Your task to perform on an android device: toggle data saver in the chrome app Image 0: 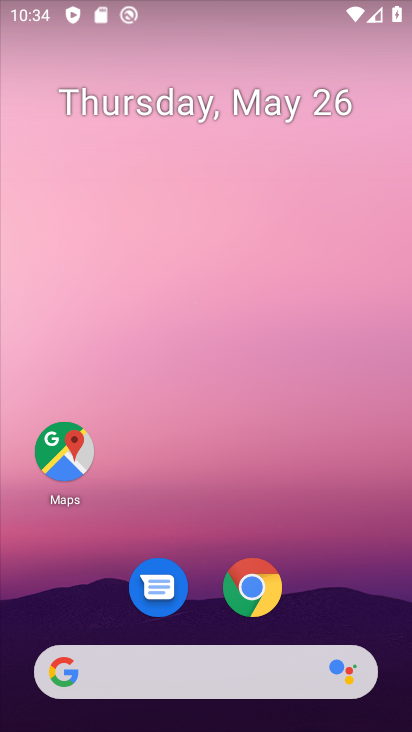
Step 0: drag from (286, 652) to (303, 84)
Your task to perform on an android device: toggle data saver in the chrome app Image 1: 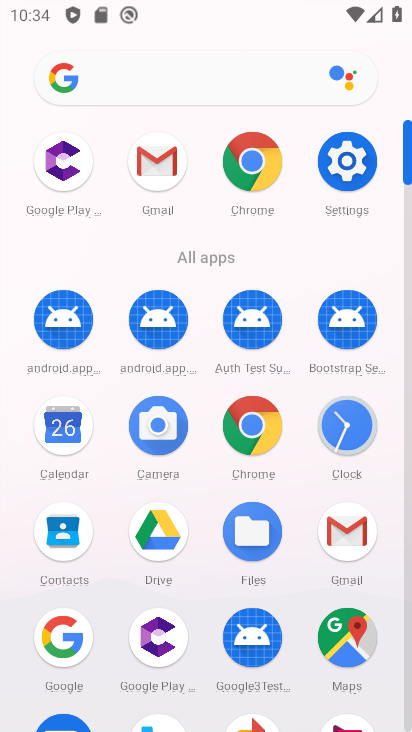
Step 1: click (246, 432)
Your task to perform on an android device: toggle data saver in the chrome app Image 2: 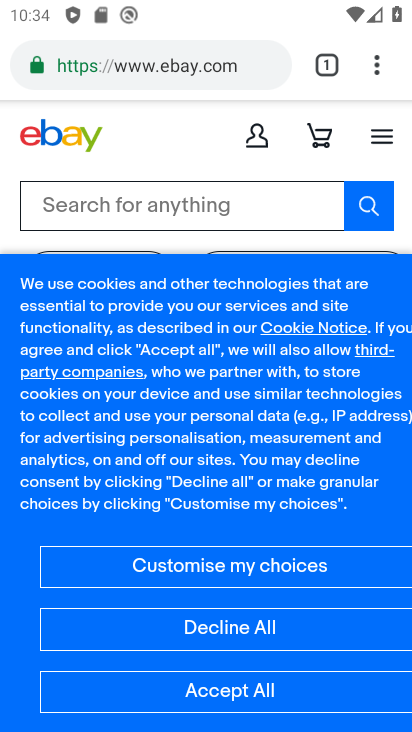
Step 2: click (367, 83)
Your task to perform on an android device: toggle data saver in the chrome app Image 3: 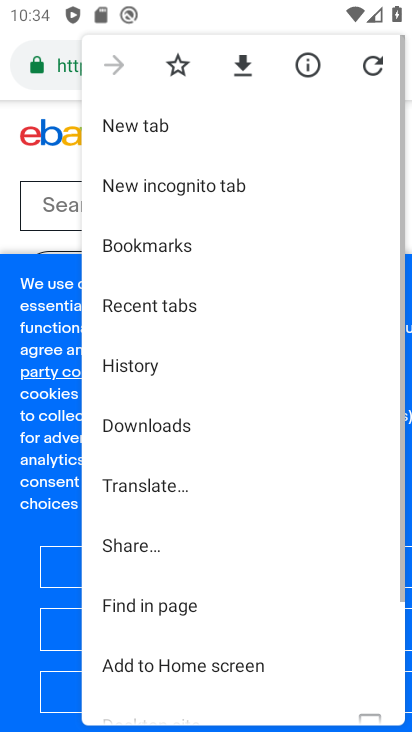
Step 3: drag from (182, 559) to (251, 180)
Your task to perform on an android device: toggle data saver in the chrome app Image 4: 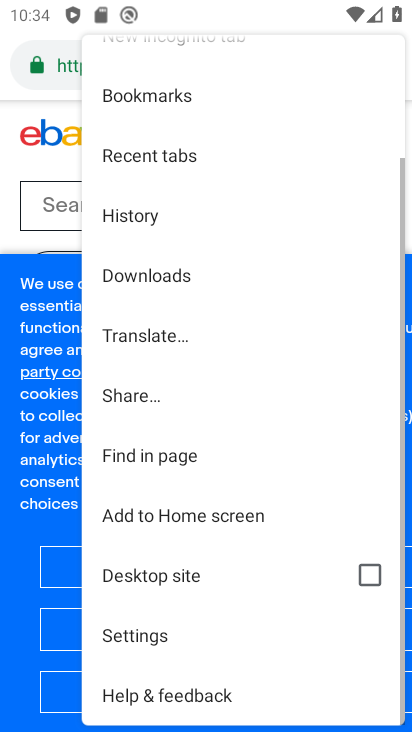
Step 4: click (159, 632)
Your task to perform on an android device: toggle data saver in the chrome app Image 5: 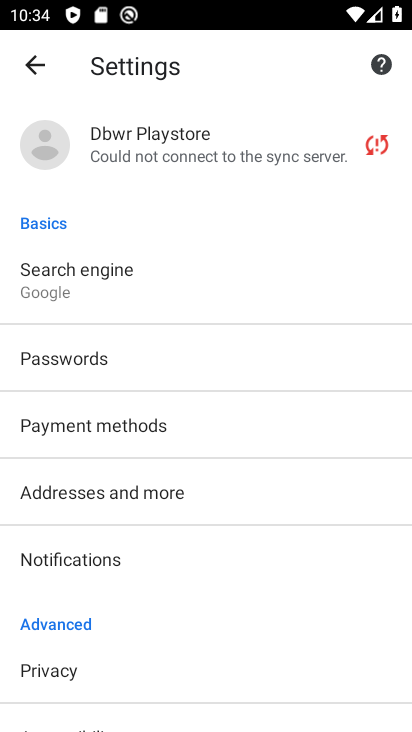
Step 5: drag from (93, 535) to (116, 284)
Your task to perform on an android device: toggle data saver in the chrome app Image 6: 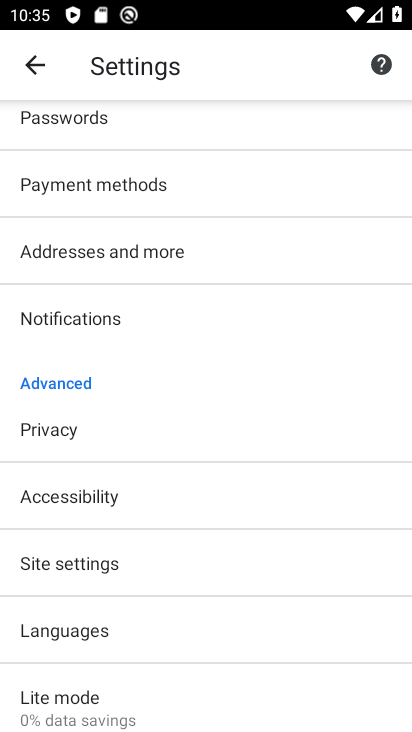
Step 6: click (91, 697)
Your task to perform on an android device: toggle data saver in the chrome app Image 7: 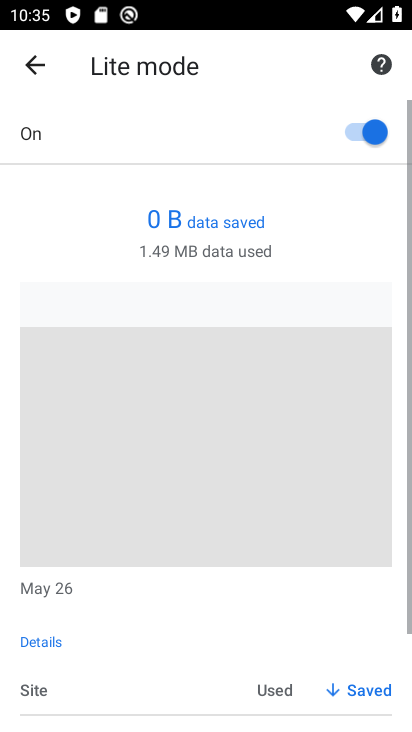
Step 7: task complete